Your task to perform on an android device: Show me popular games on the Play Store Image 0: 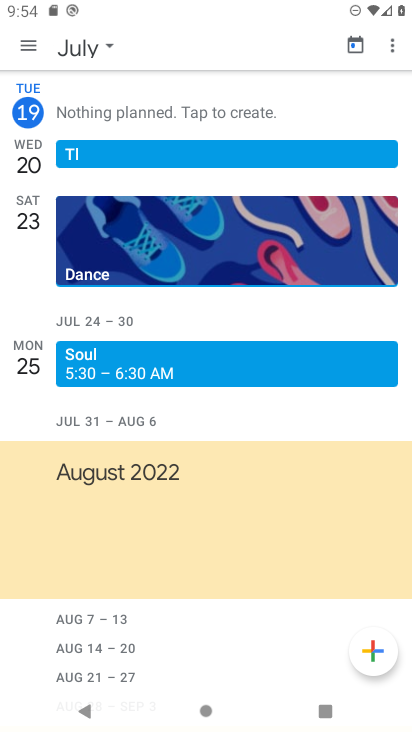
Step 0: press back button
Your task to perform on an android device: Show me popular games on the Play Store Image 1: 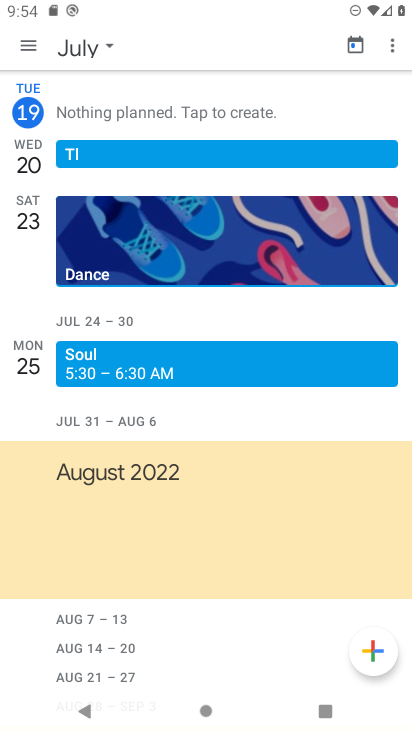
Step 1: press back button
Your task to perform on an android device: Show me popular games on the Play Store Image 2: 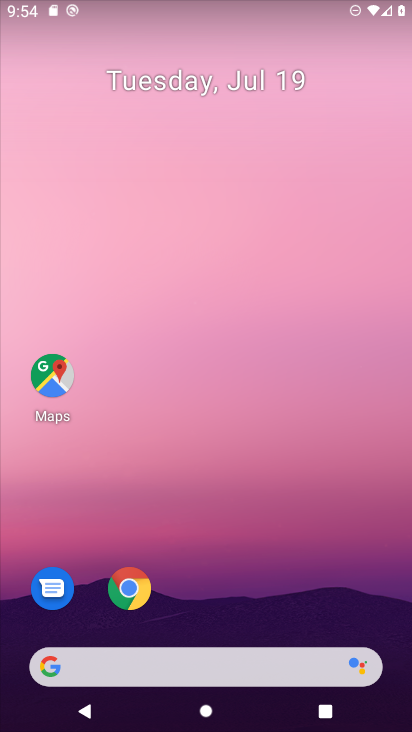
Step 2: drag from (306, 588) to (288, 188)
Your task to perform on an android device: Show me popular games on the Play Store Image 3: 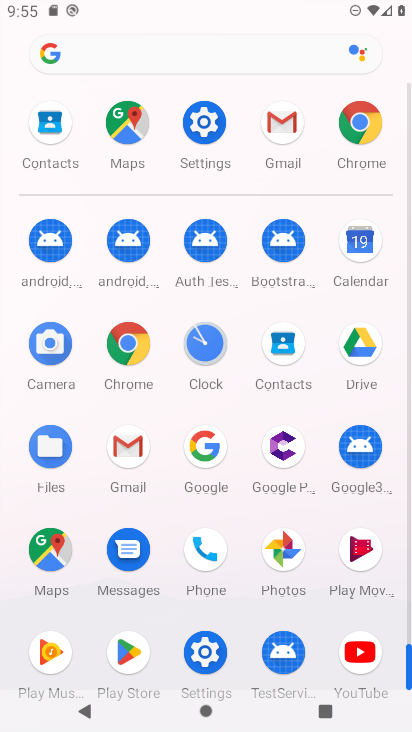
Step 3: click (132, 649)
Your task to perform on an android device: Show me popular games on the Play Store Image 4: 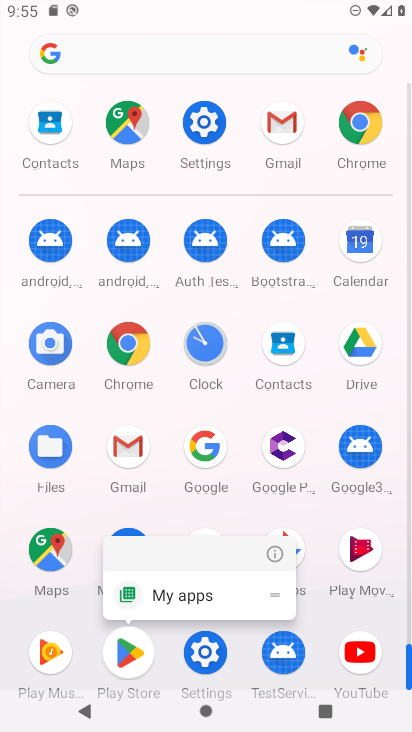
Step 4: click (137, 643)
Your task to perform on an android device: Show me popular games on the Play Store Image 5: 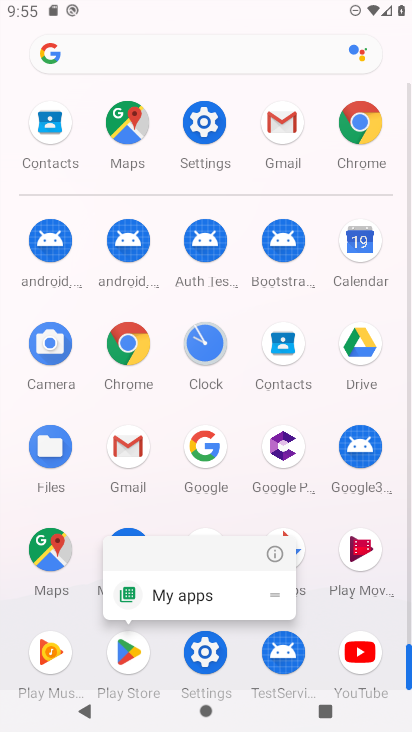
Step 5: click (144, 641)
Your task to perform on an android device: Show me popular games on the Play Store Image 6: 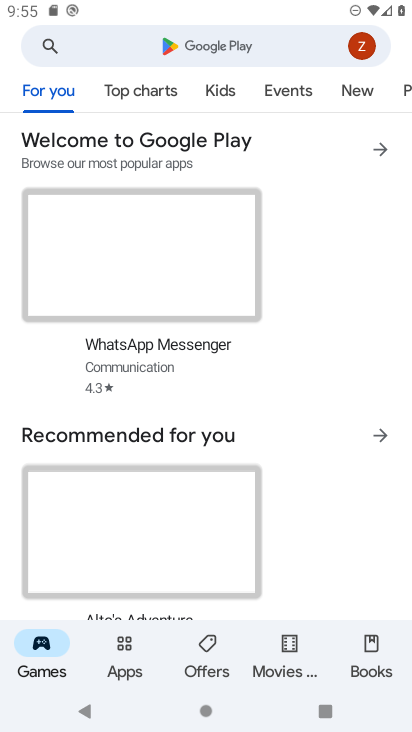
Step 6: click (231, 40)
Your task to perform on an android device: Show me popular games on the Play Store Image 7: 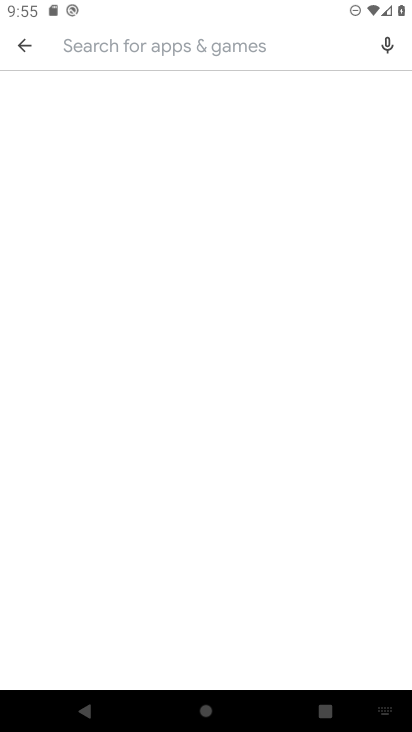
Step 7: type "popular games"
Your task to perform on an android device: Show me popular games on the Play Store Image 8: 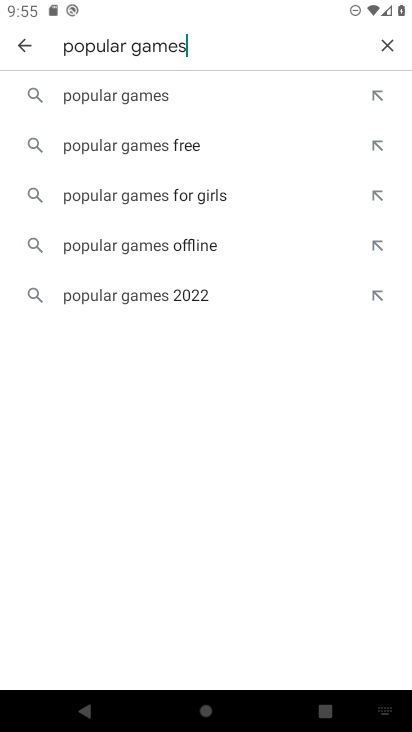
Step 8: click (142, 93)
Your task to perform on an android device: Show me popular games on the Play Store Image 9: 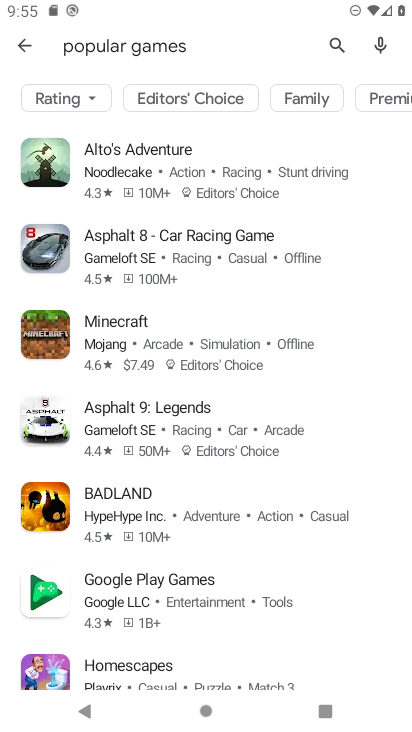
Step 9: task complete